Your task to perform on an android device: uninstall "Skype" Image 0: 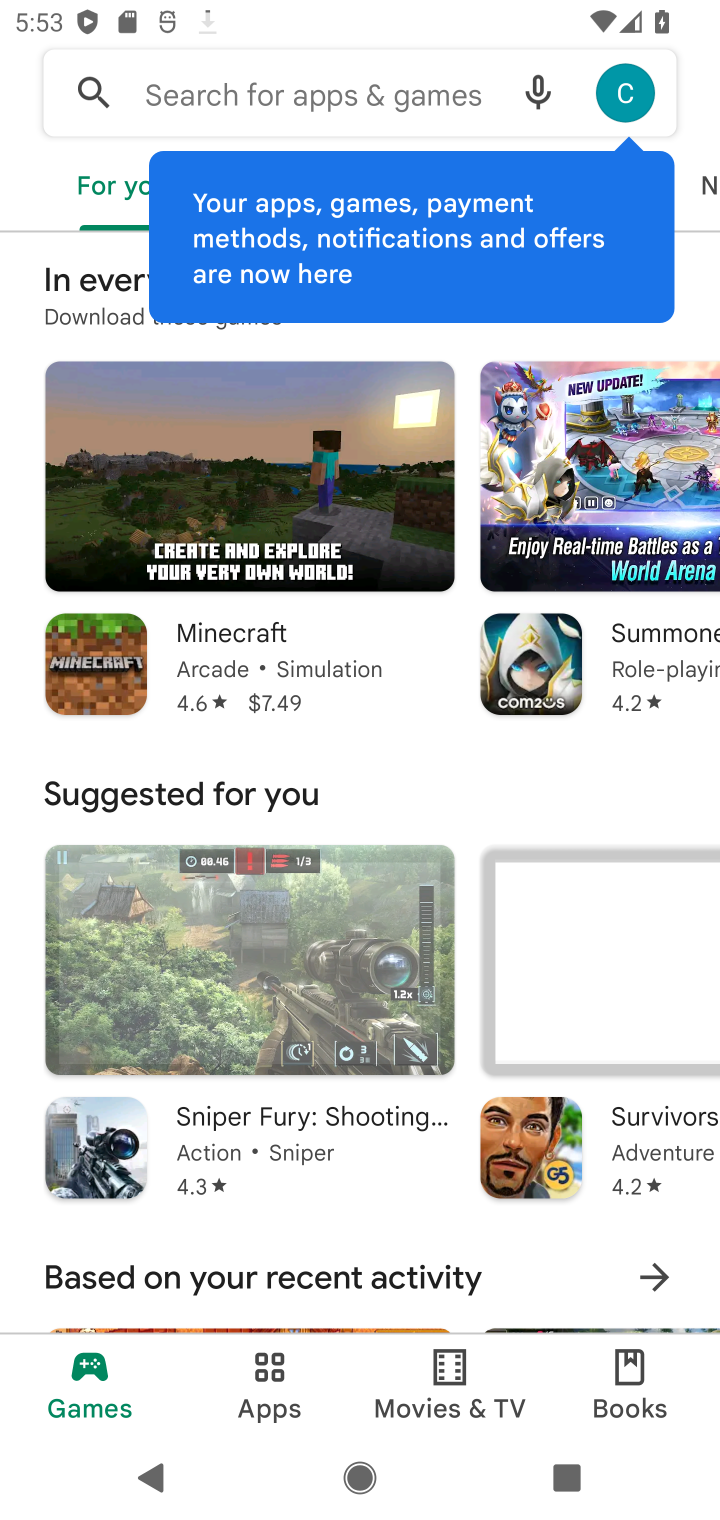
Step 0: press home button
Your task to perform on an android device: uninstall "Skype" Image 1: 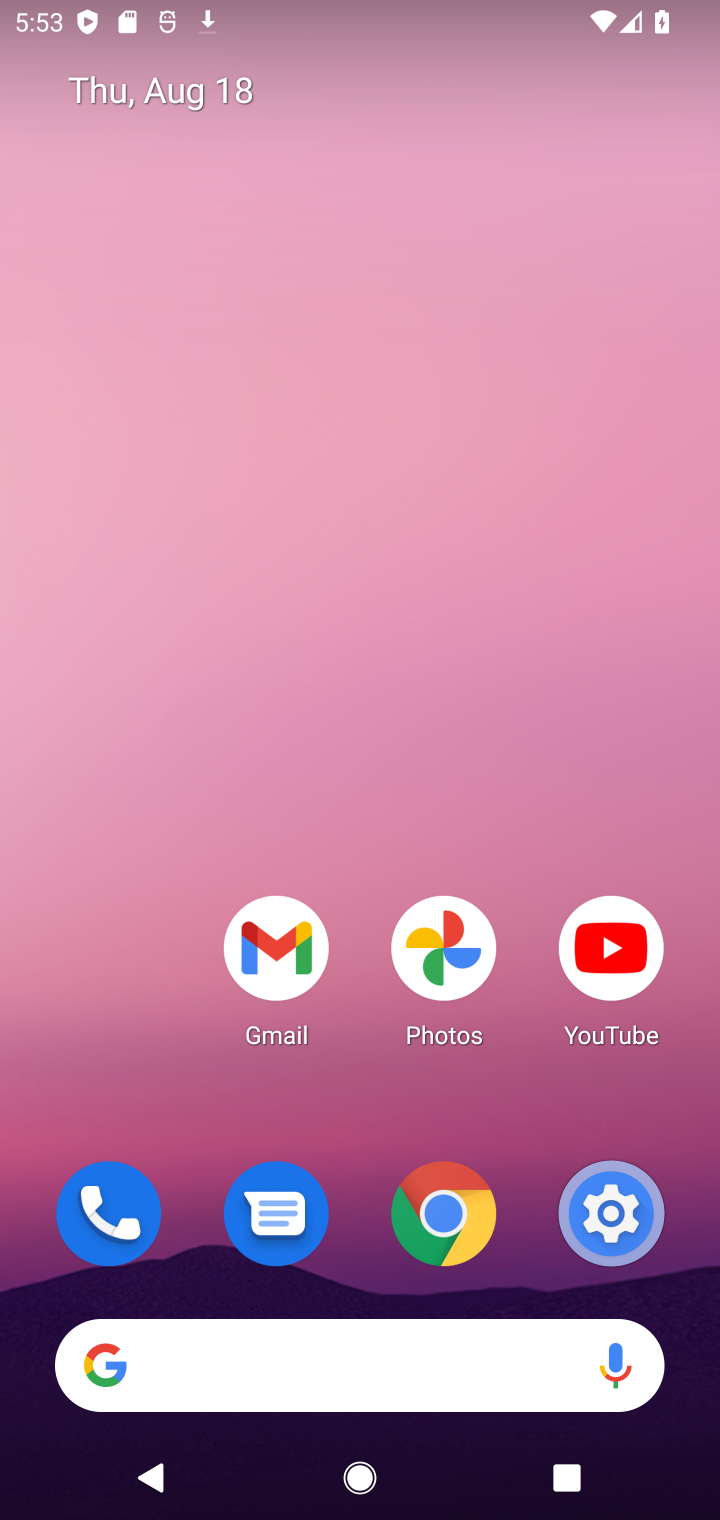
Step 1: drag from (350, 1141) to (348, 143)
Your task to perform on an android device: uninstall "Skype" Image 2: 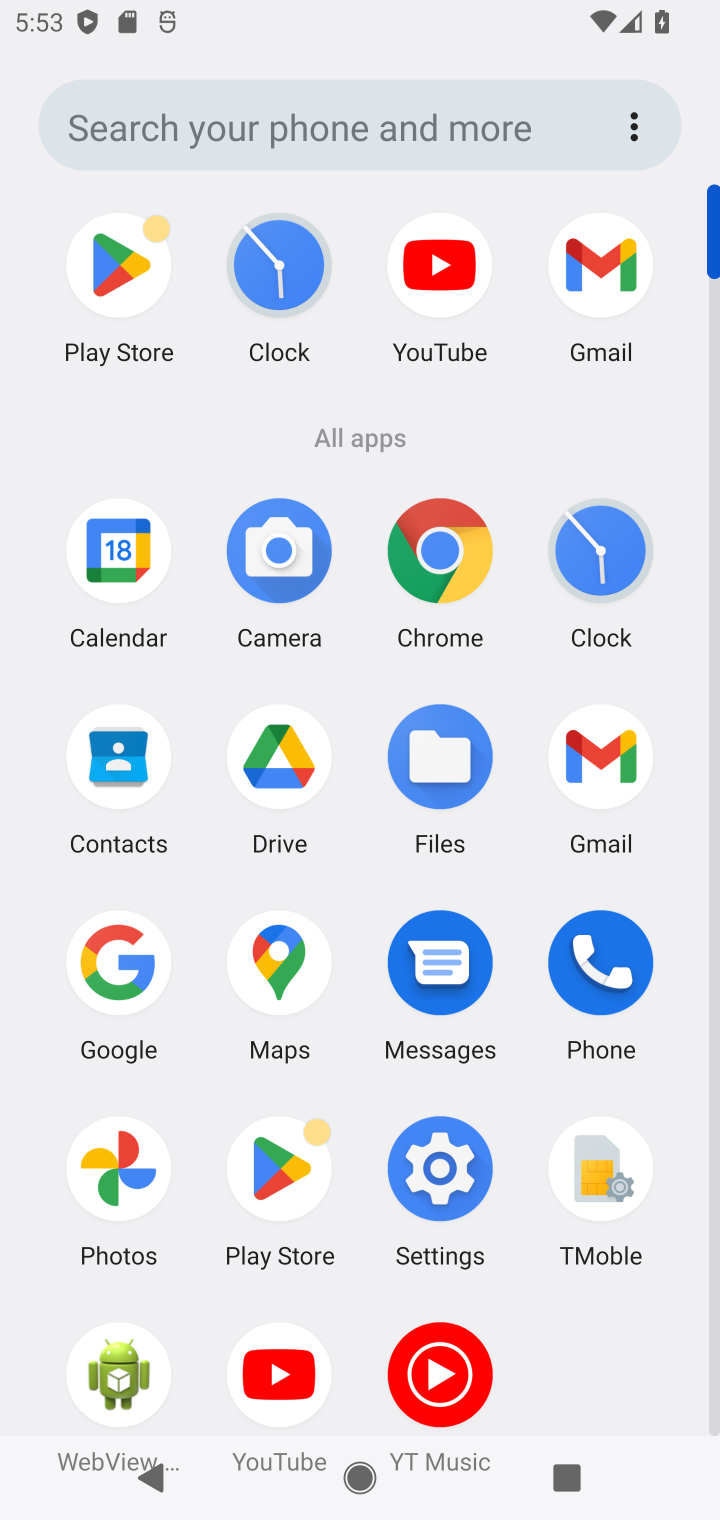
Step 2: click (268, 1159)
Your task to perform on an android device: uninstall "Skype" Image 3: 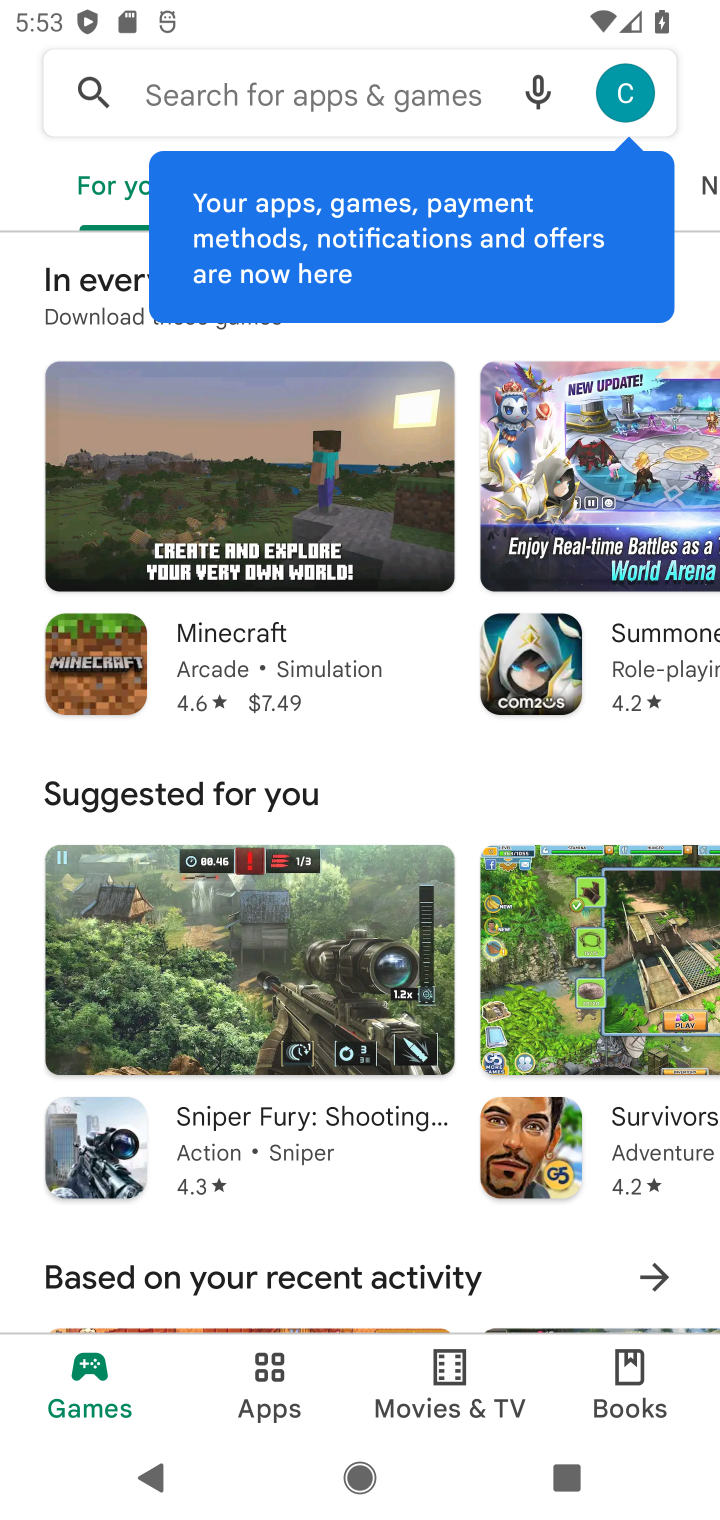
Step 3: click (189, 99)
Your task to perform on an android device: uninstall "Skype" Image 4: 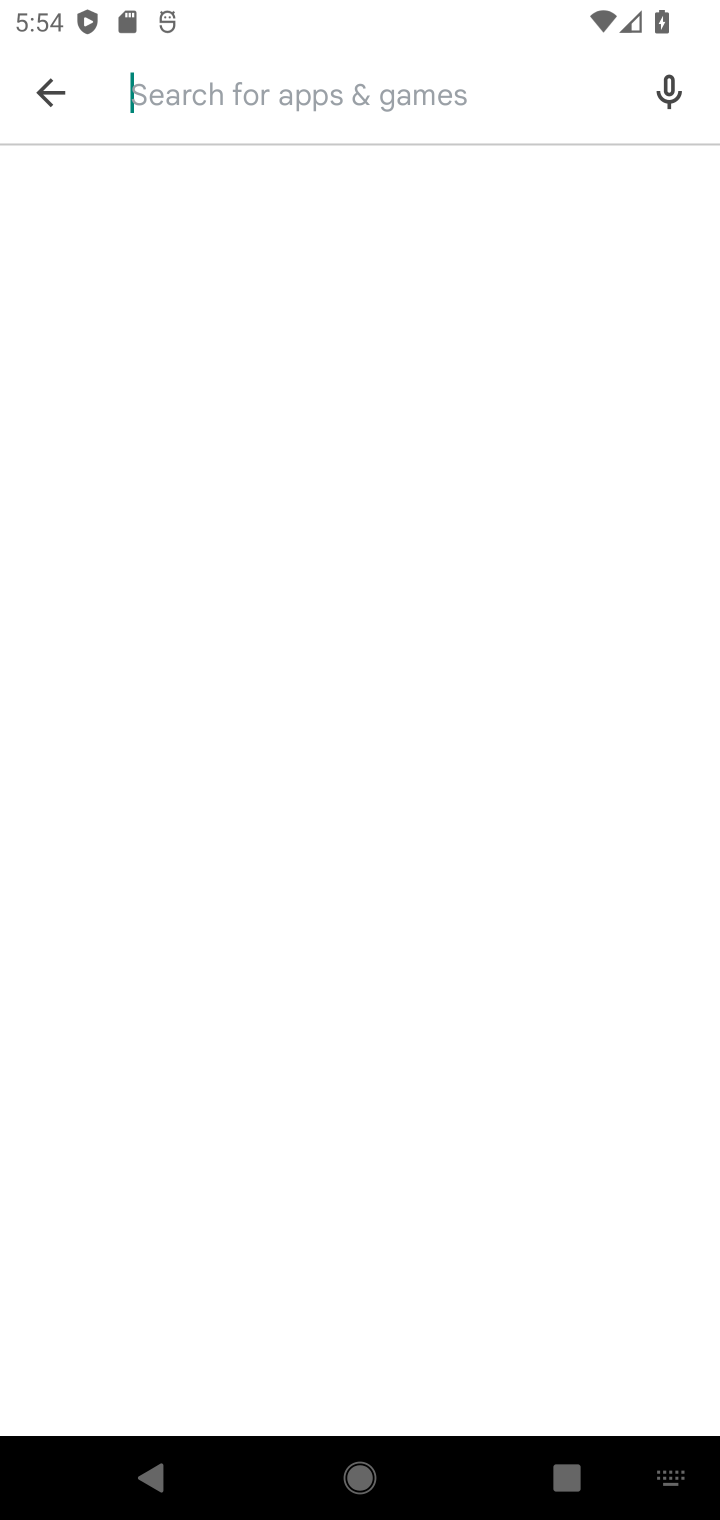
Step 4: type "Skype"
Your task to perform on an android device: uninstall "Skype" Image 5: 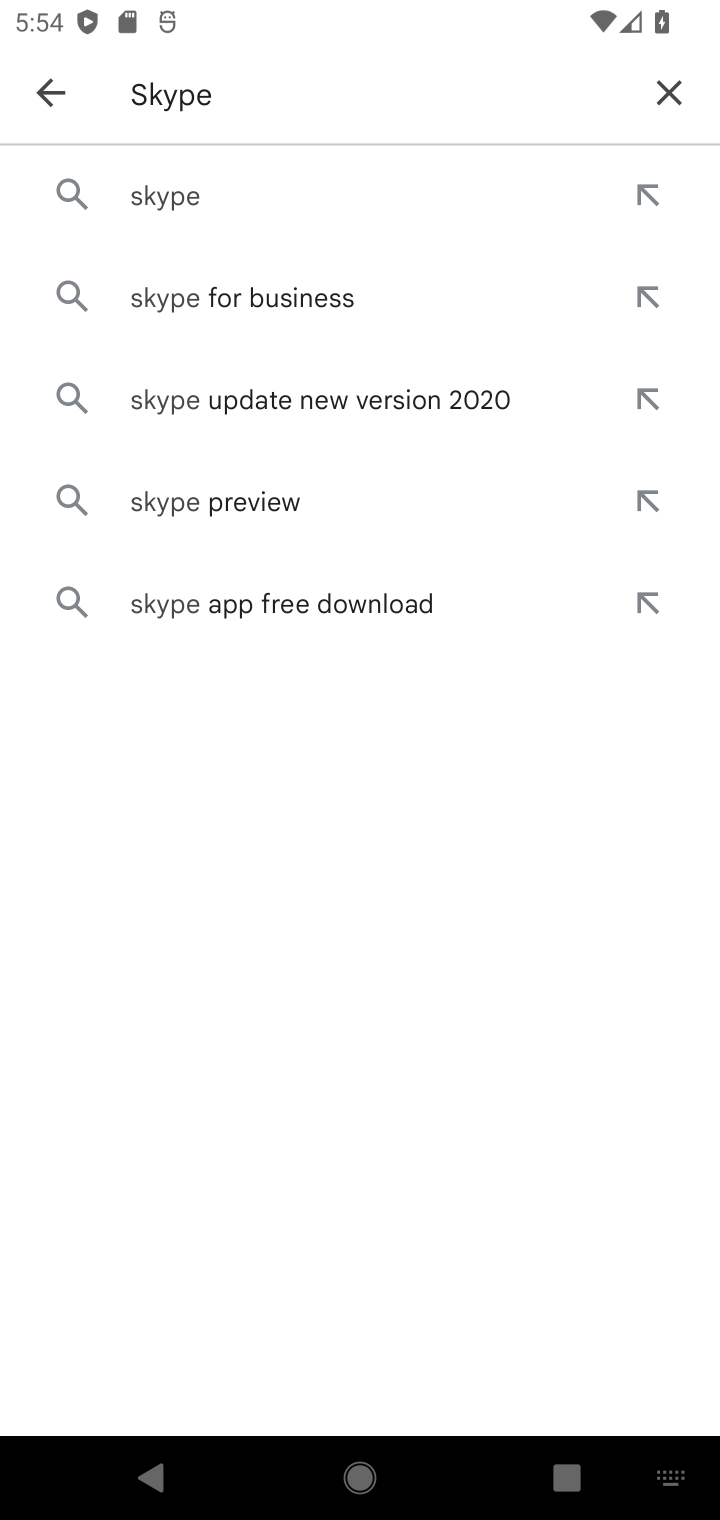
Step 5: click (209, 195)
Your task to perform on an android device: uninstall "Skype" Image 6: 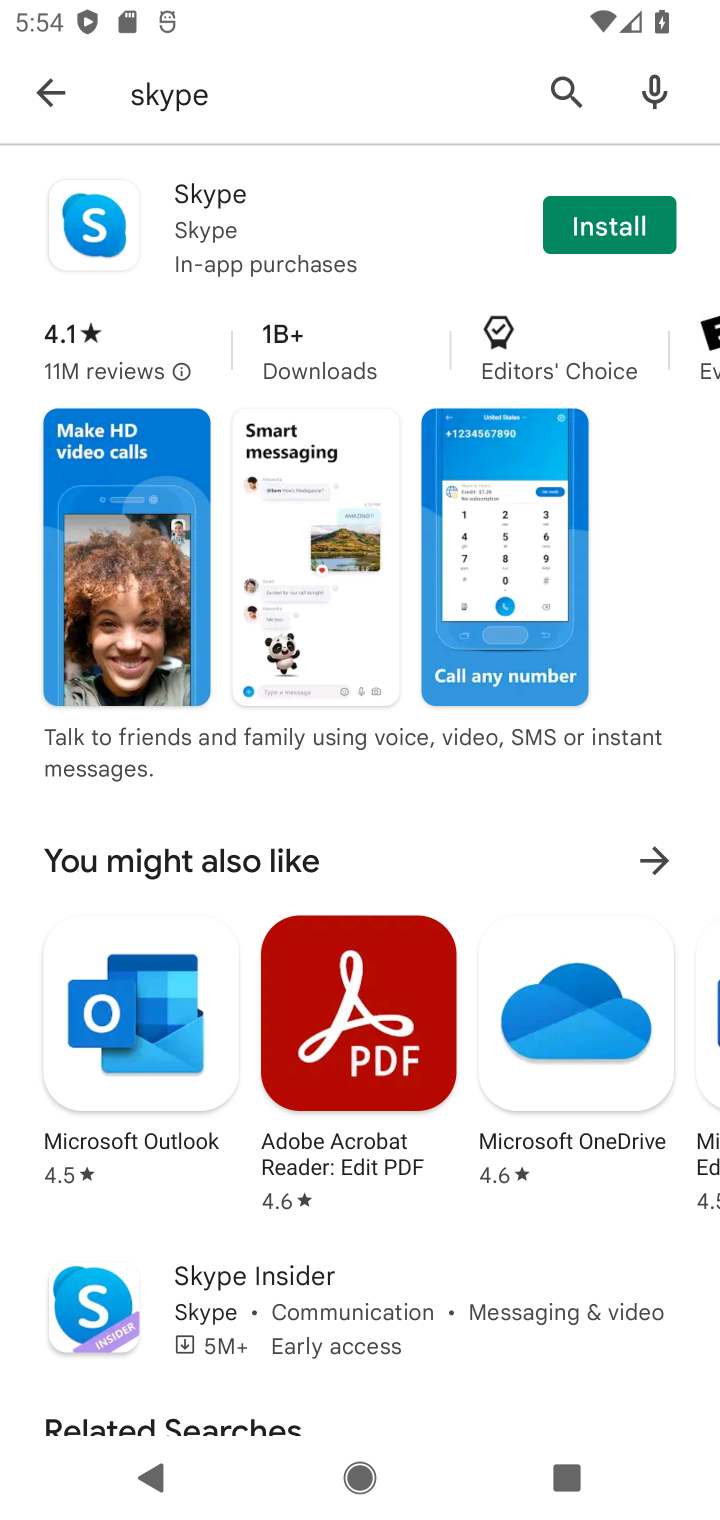
Step 6: task complete